Your task to perform on an android device: Toggle the flashlight Image 0: 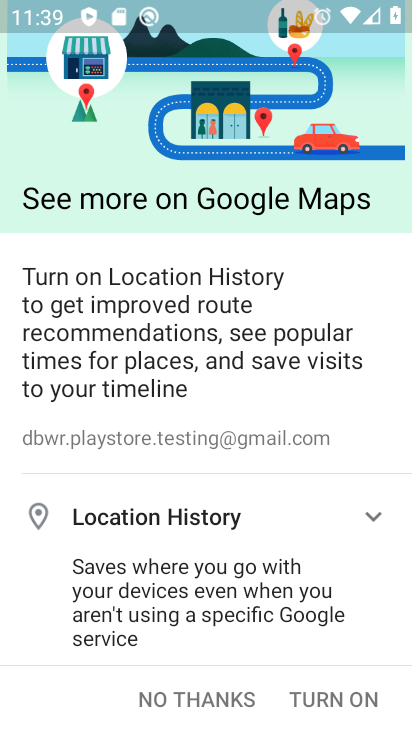
Step 0: press home button
Your task to perform on an android device: Toggle the flashlight Image 1: 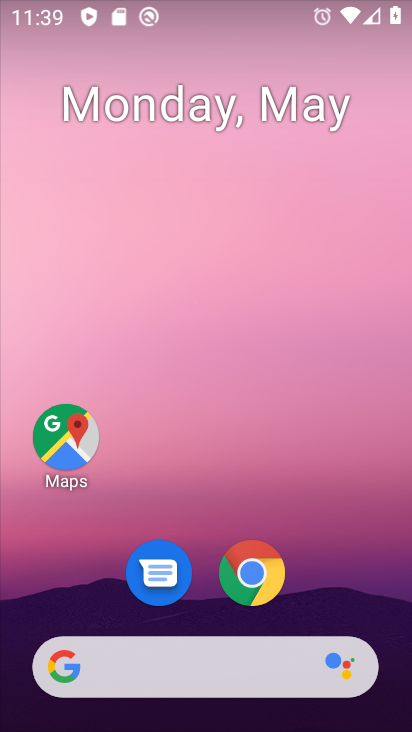
Step 1: drag from (188, 18) to (84, 706)
Your task to perform on an android device: Toggle the flashlight Image 2: 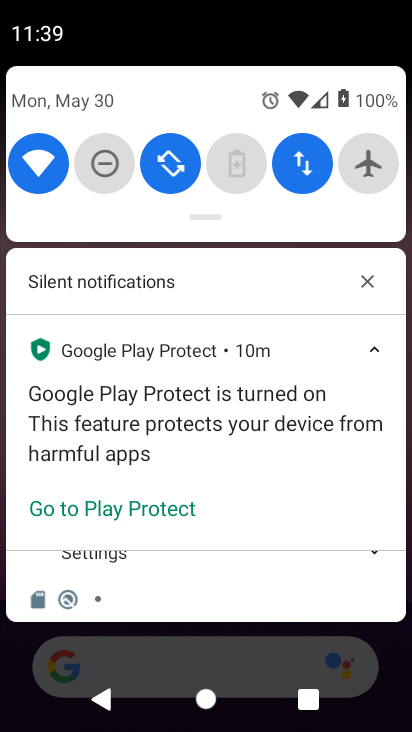
Step 2: drag from (202, 217) to (116, 716)
Your task to perform on an android device: Toggle the flashlight Image 3: 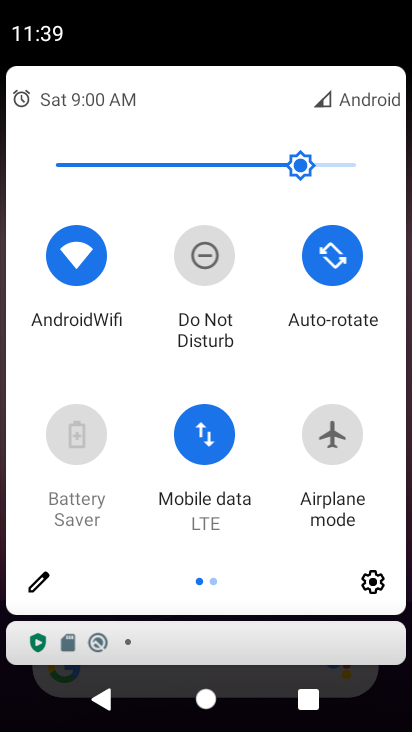
Step 3: click (21, 578)
Your task to perform on an android device: Toggle the flashlight Image 4: 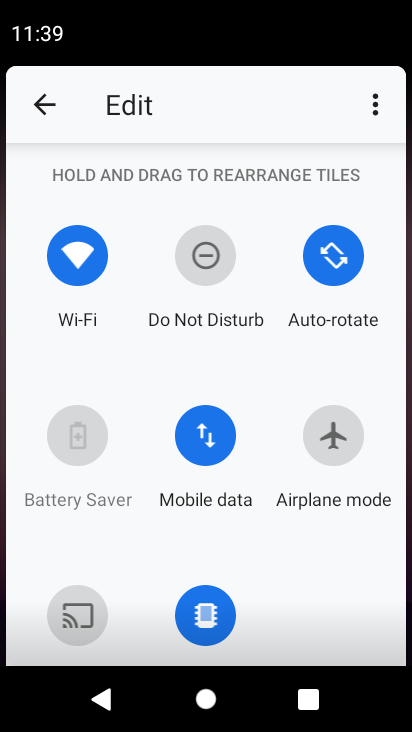
Step 4: task complete